Your task to perform on an android device: turn off javascript in the chrome app Image 0: 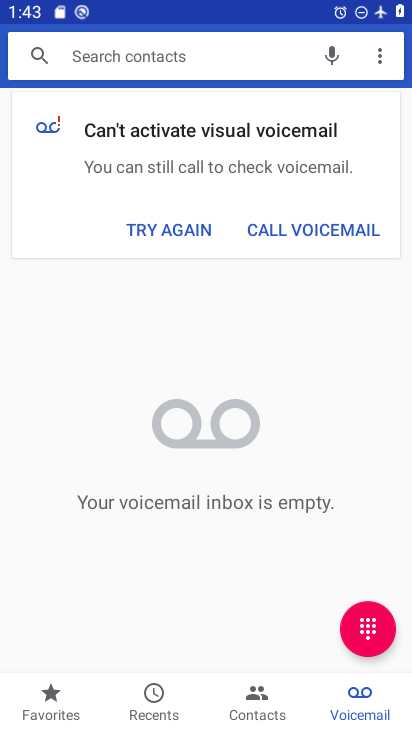
Step 0: press home button
Your task to perform on an android device: turn off javascript in the chrome app Image 1: 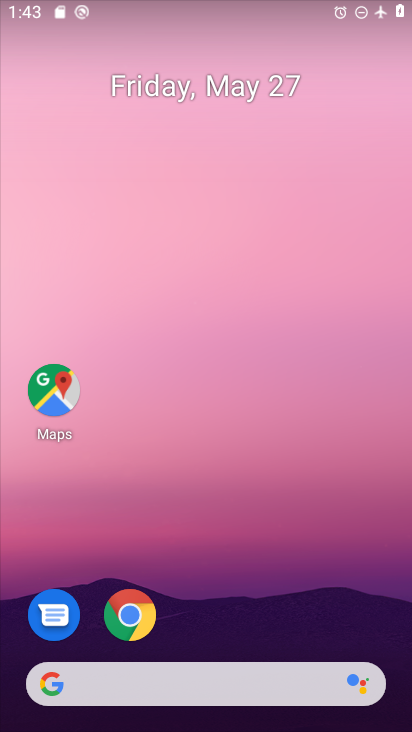
Step 1: drag from (315, 685) to (359, 15)
Your task to perform on an android device: turn off javascript in the chrome app Image 2: 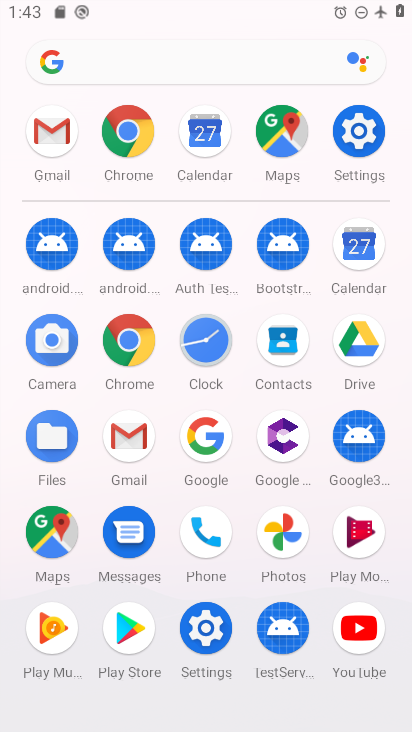
Step 2: click (119, 336)
Your task to perform on an android device: turn off javascript in the chrome app Image 3: 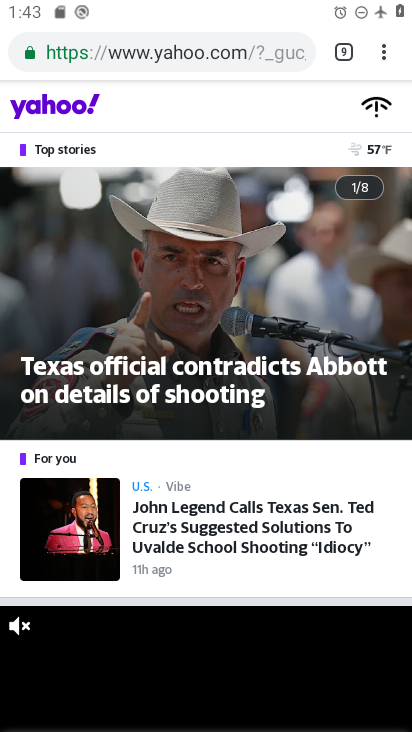
Step 3: drag from (379, 40) to (237, 585)
Your task to perform on an android device: turn off javascript in the chrome app Image 4: 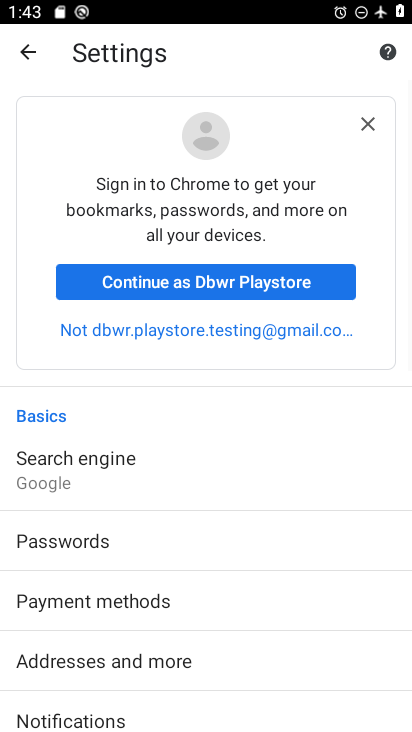
Step 4: drag from (195, 603) to (223, 102)
Your task to perform on an android device: turn off javascript in the chrome app Image 5: 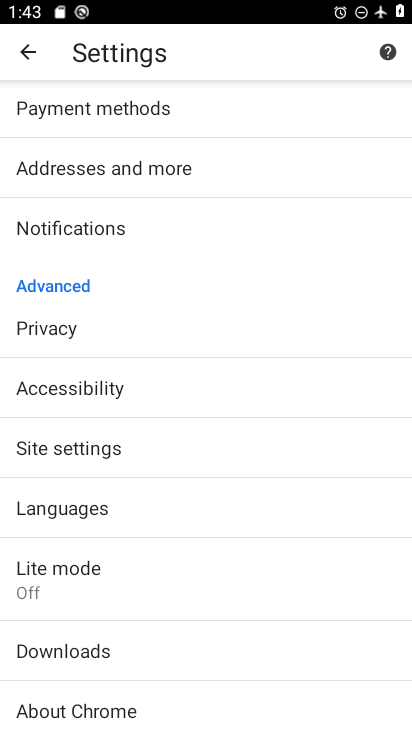
Step 5: click (102, 464)
Your task to perform on an android device: turn off javascript in the chrome app Image 6: 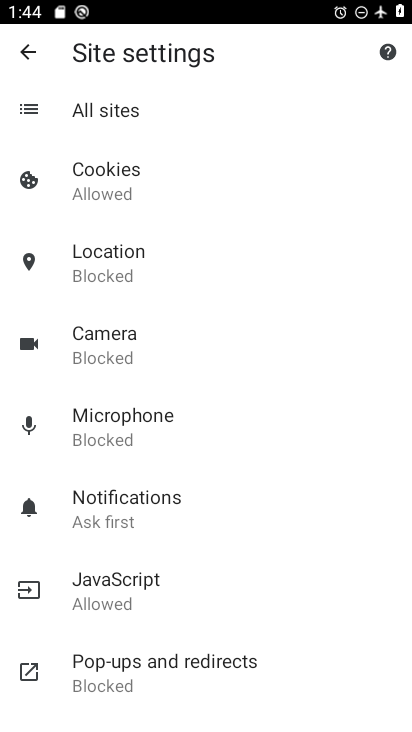
Step 6: click (140, 582)
Your task to perform on an android device: turn off javascript in the chrome app Image 7: 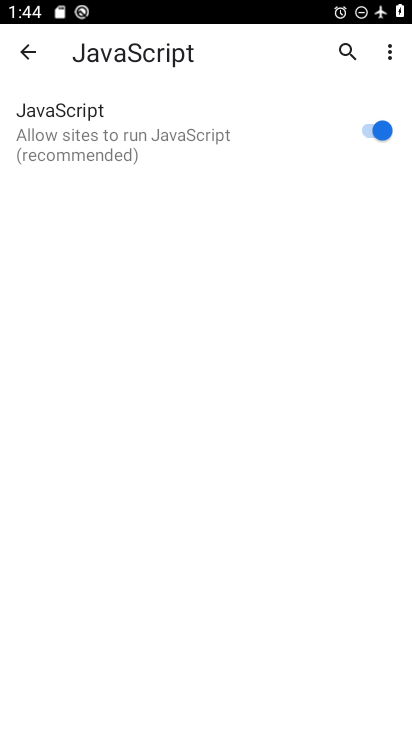
Step 7: click (364, 126)
Your task to perform on an android device: turn off javascript in the chrome app Image 8: 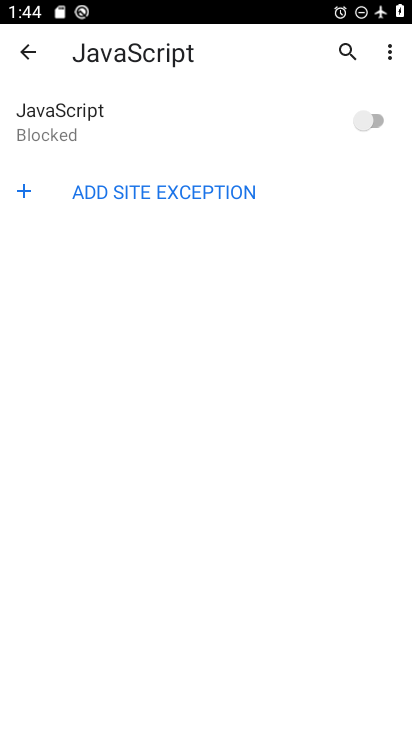
Step 8: task complete